Your task to perform on an android device: toggle translation in the chrome app Image 0: 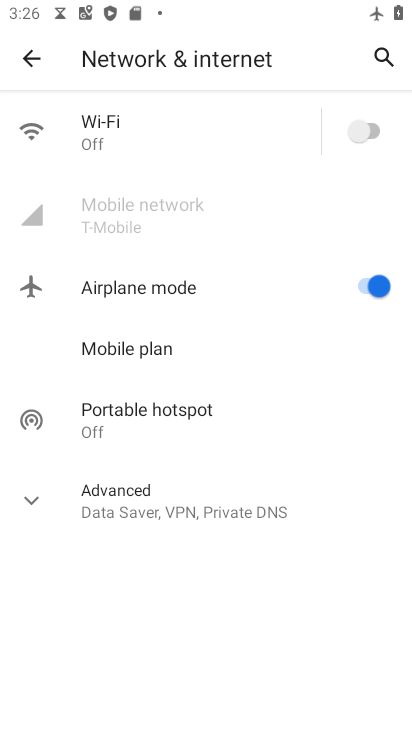
Step 0: press home button
Your task to perform on an android device: toggle translation in the chrome app Image 1: 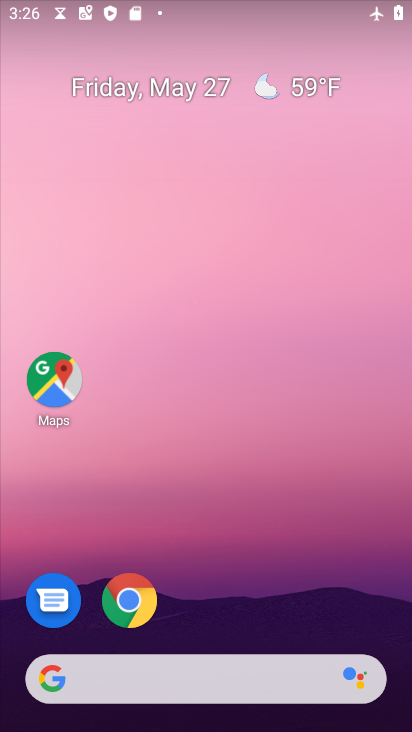
Step 1: click (127, 598)
Your task to perform on an android device: toggle translation in the chrome app Image 2: 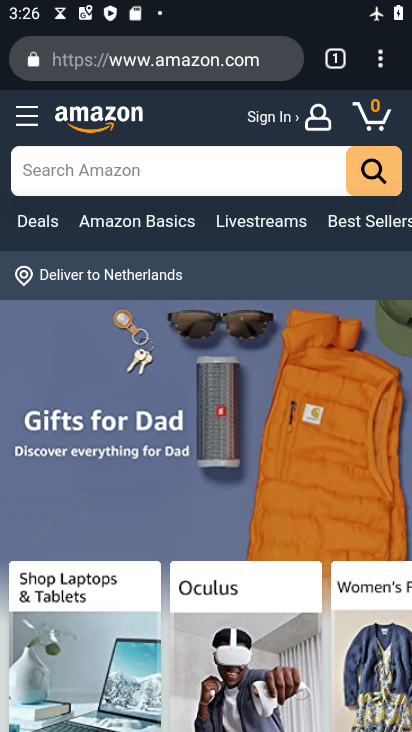
Step 2: click (381, 60)
Your task to perform on an android device: toggle translation in the chrome app Image 3: 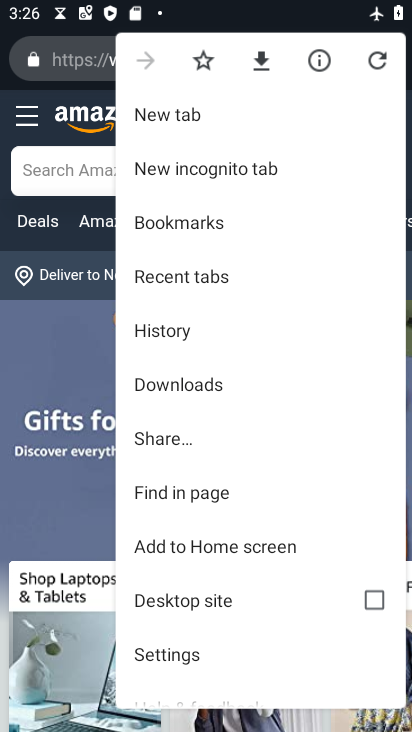
Step 3: drag from (199, 461) to (216, 380)
Your task to perform on an android device: toggle translation in the chrome app Image 4: 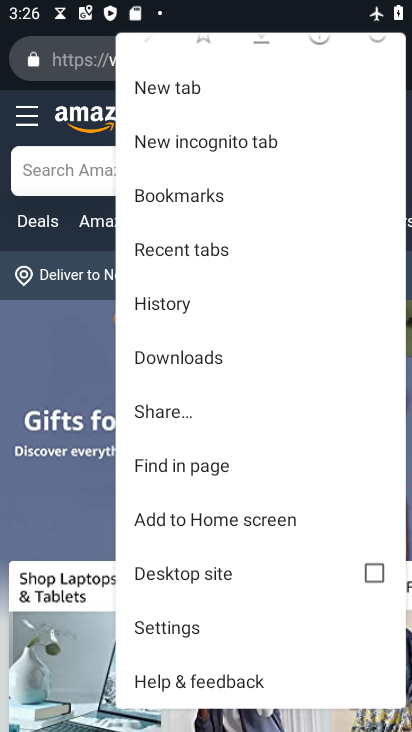
Step 4: click (175, 622)
Your task to perform on an android device: toggle translation in the chrome app Image 5: 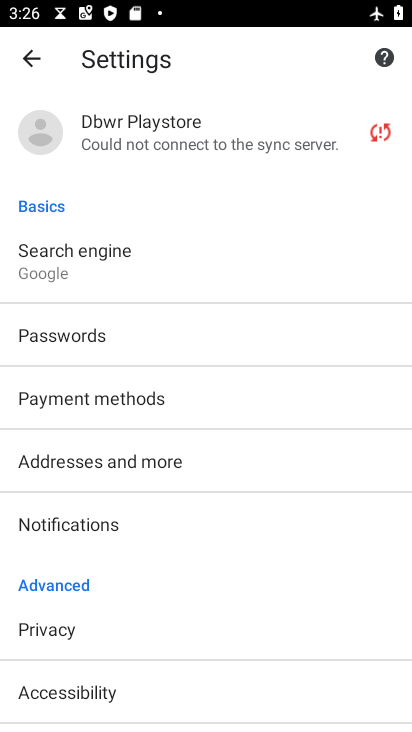
Step 5: drag from (93, 549) to (113, 435)
Your task to perform on an android device: toggle translation in the chrome app Image 6: 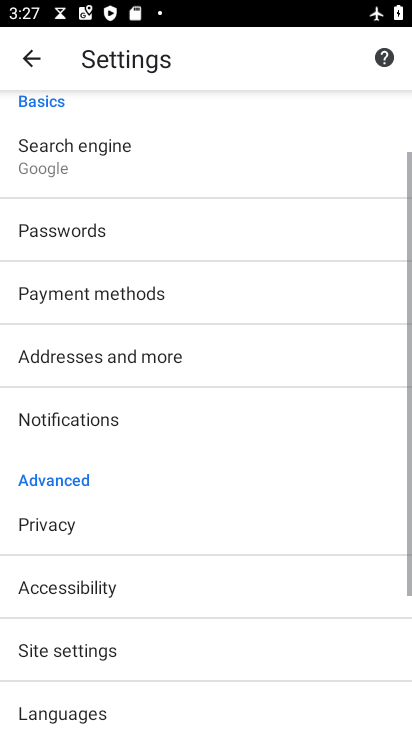
Step 6: drag from (99, 583) to (130, 486)
Your task to perform on an android device: toggle translation in the chrome app Image 7: 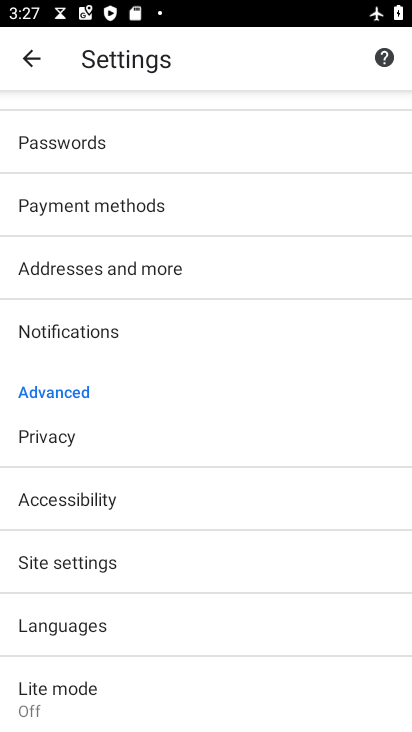
Step 7: click (91, 630)
Your task to perform on an android device: toggle translation in the chrome app Image 8: 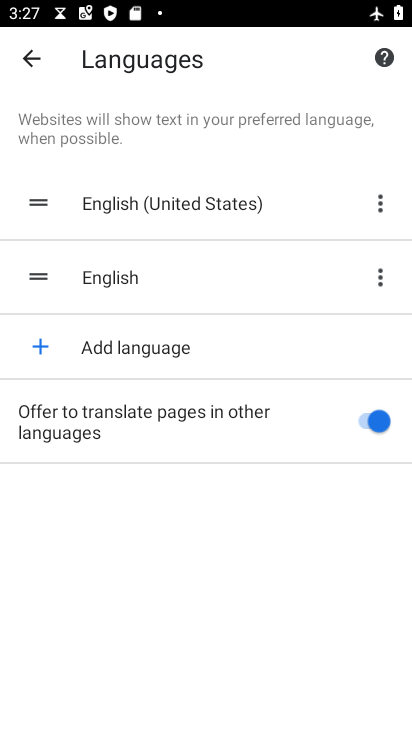
Step 8: click (380, 422)
Your task to perform on an android device: toggle translation in the chrome app Image 9: 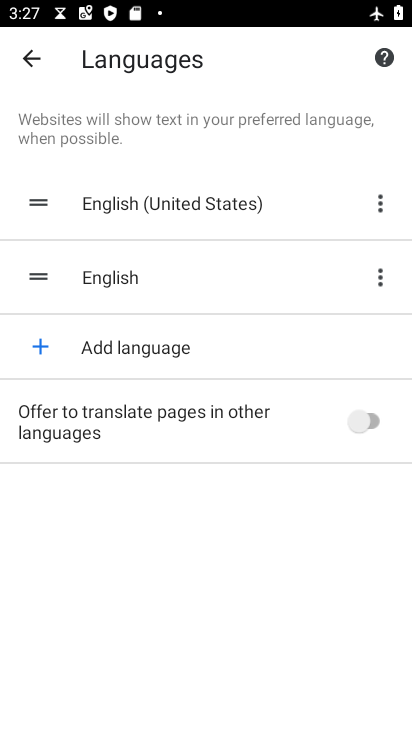
Step 9: task complete